Your task to perform on an android device: Clear the shopping cart on ebay. Add lg ultragear to the cart on ebay, then select checkout. Image 0: 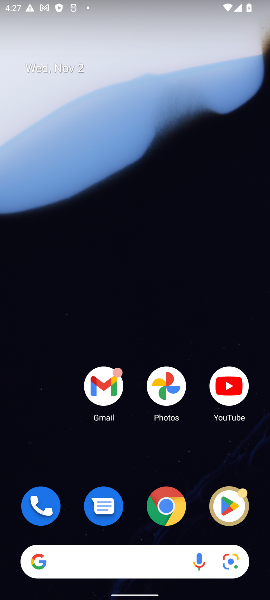
Step 0: click (171, 512)
Your task to perform on an android device: Clear the shopping cart on ebay. Add lg ultragear to the cart on ebay, then select checkout. Image 1: 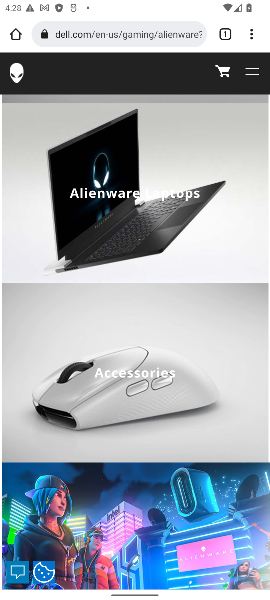
Step 1: click (143, 39)
Your task to perform on an android device: Clear the shopping cart on ebay. Add lg ultragear to the cart on ebay, then select checkout. Image 2: 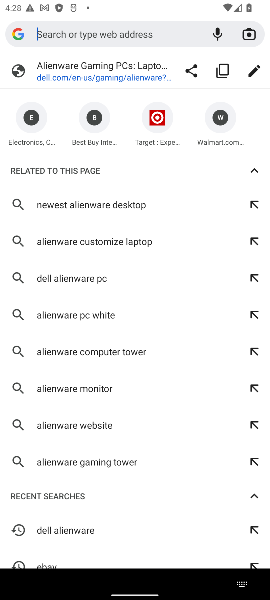
Step 2: type "ebay"
Your task to perform on an android device: Clear the shopping cart on ebay. Add lg ultragear to the cart on ebay, then select checkout. Image 3: 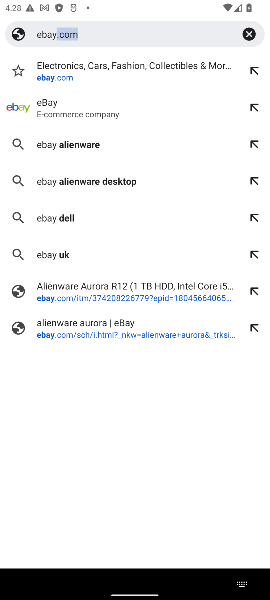
Step 3: click (170, 73)
Your task to perform on an android device: Clear the shopping cart on ebay. Add lg ultragear to the cart on ebay, then select checkout. Image 4: 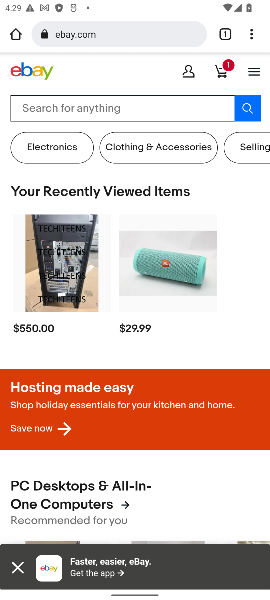
Step 4: click (227, 67)
Your task to perform on an android device: Clear the shopping cart on ebay. Add lg ultragear to the cart on ebay, then select checkout. Image 5: 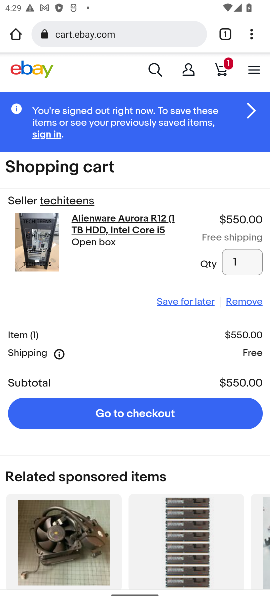
Step 5: click (248, 301)
Your task to perform on an android device: Clear the shopping cart on ebay. Add lg ultragear to the cart on ebay, then select checkout. Image 6: 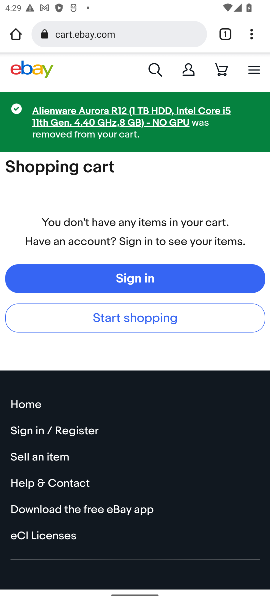
Step 6: task complete